Your task to perform on an android device: Go to notification settings Image 0: 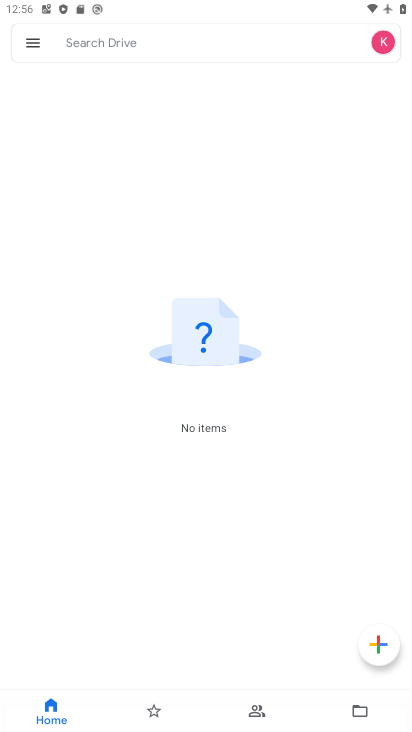
Step 0: press home button
Your task to perform on an android device: Go to notification settings Image 1: 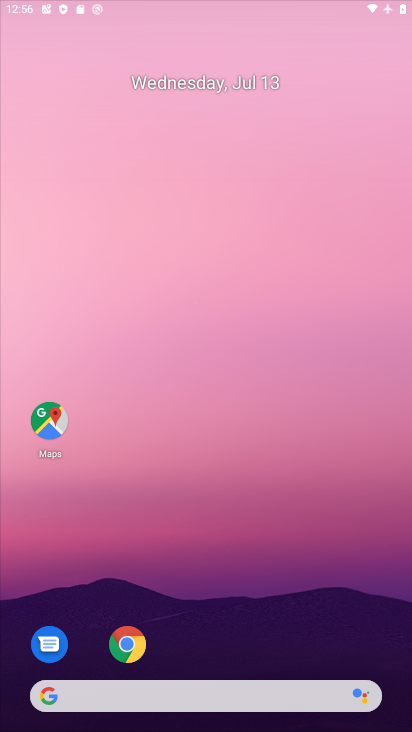
Step 1: drag from (253, 603) to (283, 46)
Your task to perform on an android device: Go to notification settings Image 2: 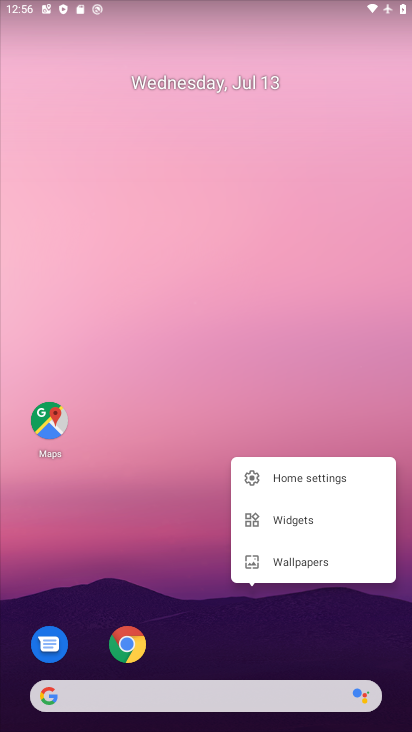
Step 2: click (252, 669)
Your task to perform on an android device: Go to notification settings Image 3: 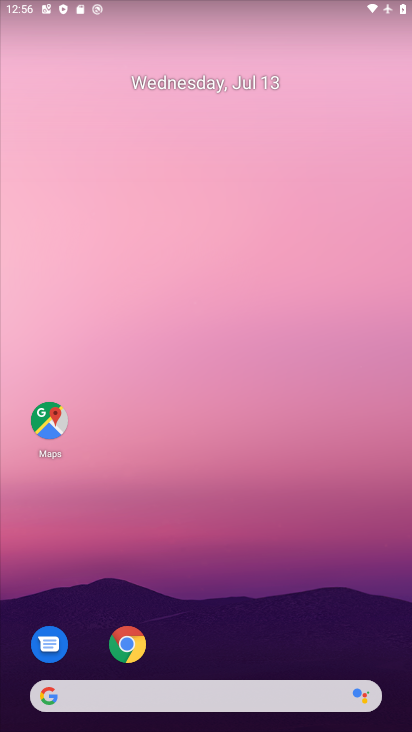
Step 3: drag from (292, 620) to (366, 243)
Your task to perform on an android device: Go to notification settings Image 4: 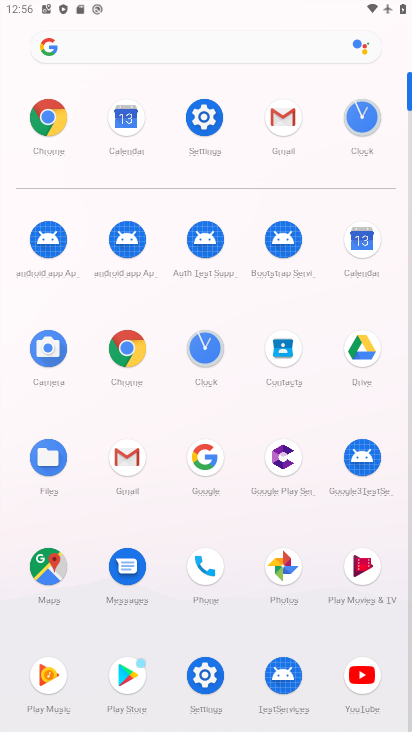
Step 4: click (208, 119)
Your task to perform on an android device: Go to notification settings Image 5: 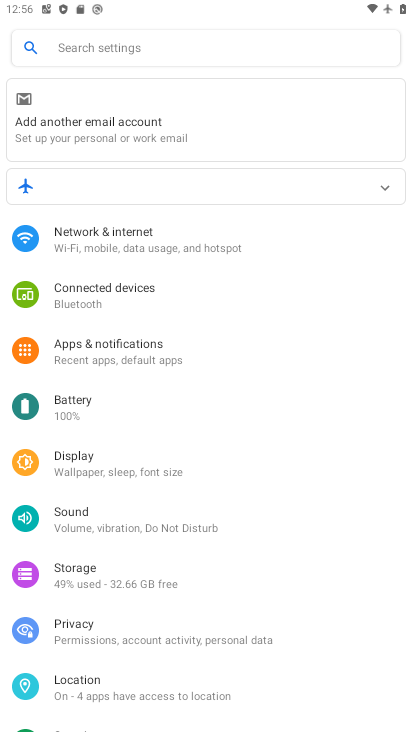
Step 5: click (114, 349)
Your task to perform on an android device: Go to notification settings Image 6: 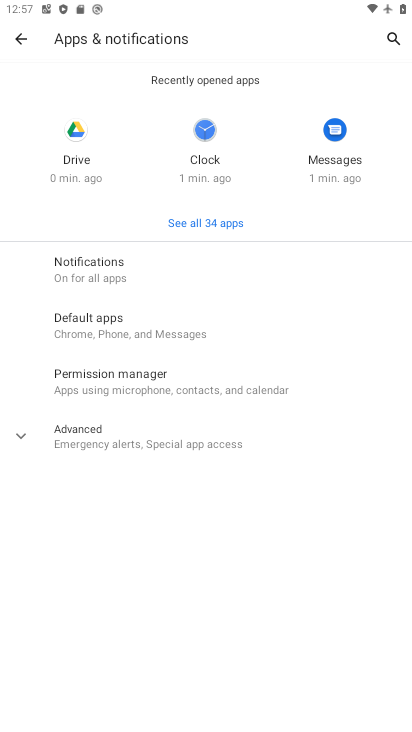
Step 6: click (153, 278)
Your task to perform on an android device: Go to notification settings Image 7: 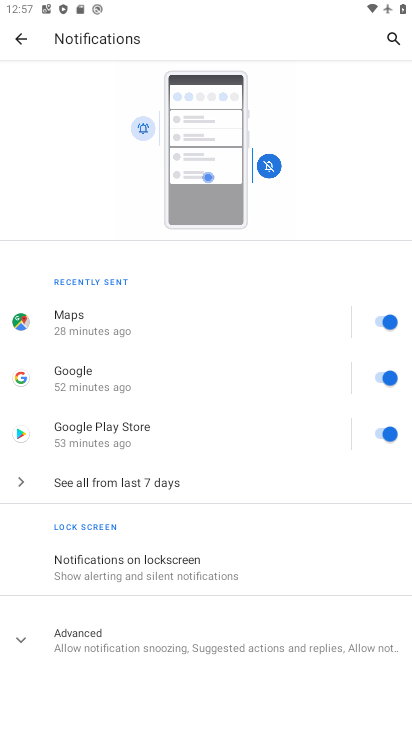
Step 7: task complete